Your task to perform on an android device: stop showing notifications on the lock screen Image 0: 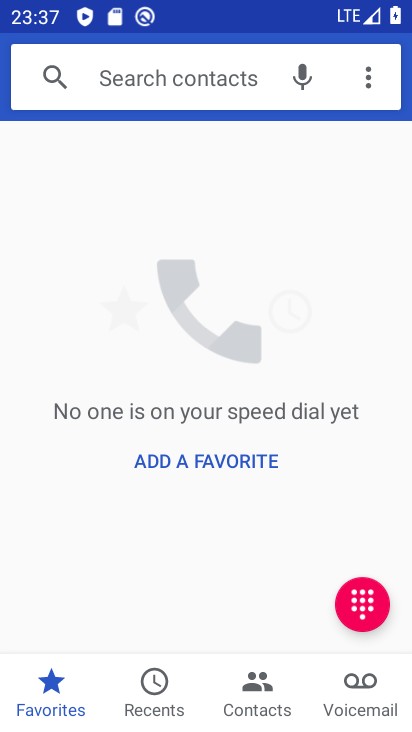
Step 0: press home button
Your task to perform on an android device: stop showing notifications on the lock screen Image 1: 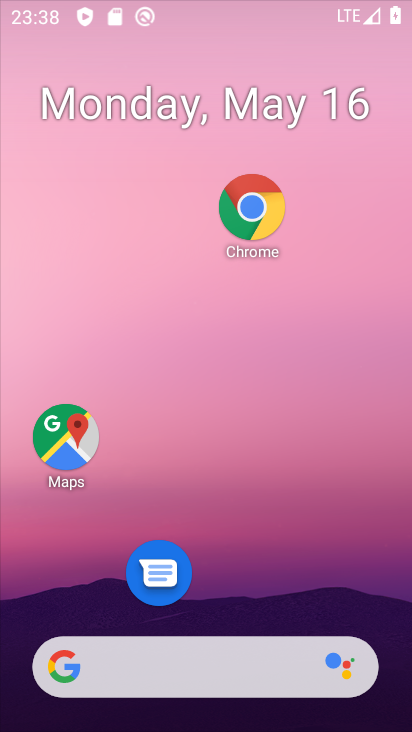
Step 1: drag from (141, 672) to (188, 49)
Your task to perform on an android device: stop showing notifications on the lock screen Image 2: 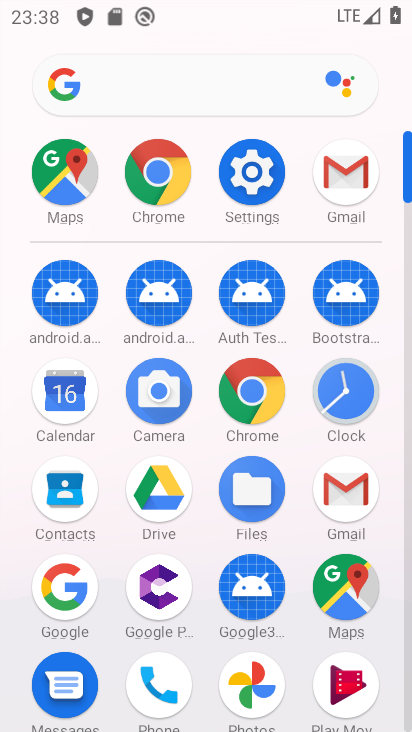
Step 2: click (259, 181)
Your task to perform on an android device: stop showing notifications on the lock screen Image 3: 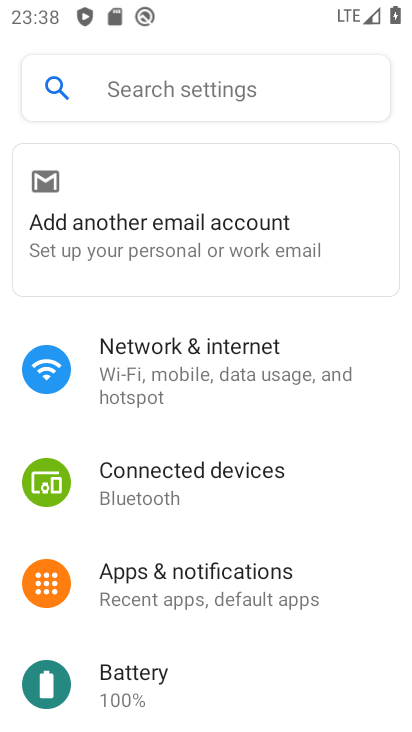
Step 3: click (199, 597)
Your task to perform on an android device: stop showing notifications on the lock screen Image 4: 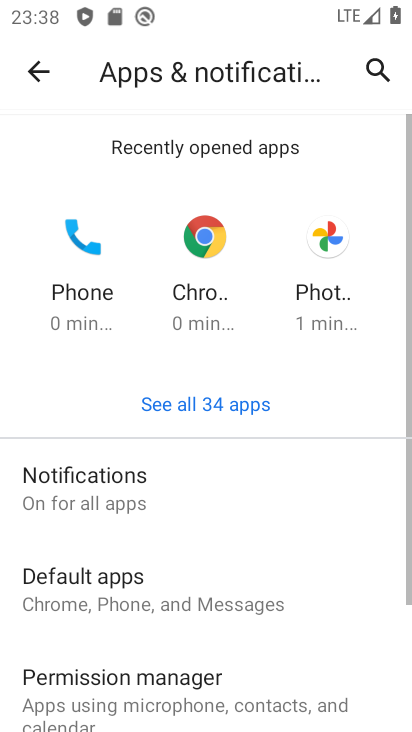
Step 4: drag from (219, 682) to (240, 463)
Your task to perform on an android device: stop showing notifications on the lock screen Image 5: 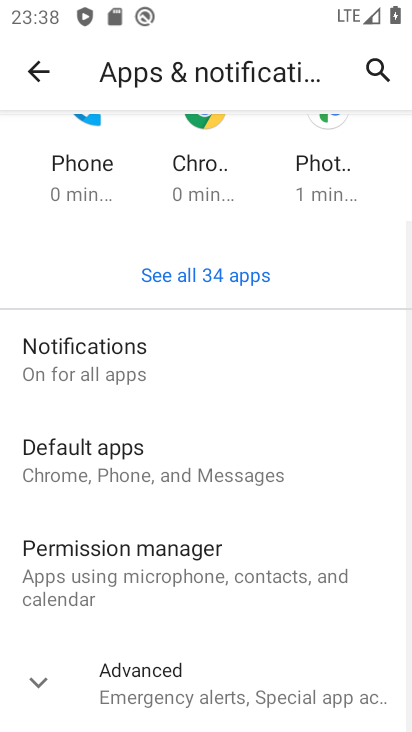
Step 5: click (152, 363)
Your task to perform on an android device: stop showing notifications on the lock screen Image 6: 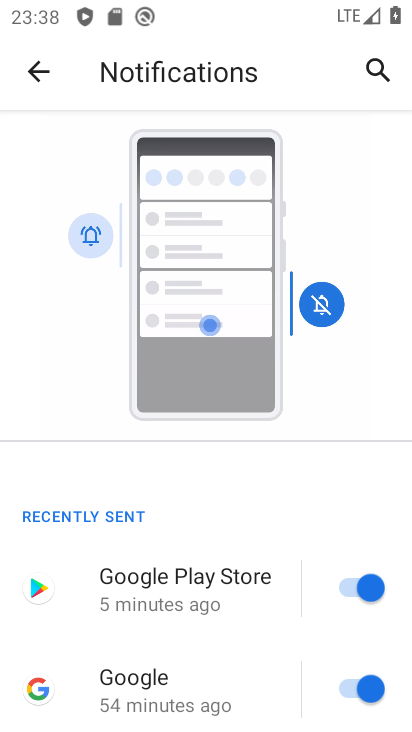
Step 6: drag from (237, 674) to (282, 185)
Your task to perform on an android device: stop showing notifications on the lock screen Image 7: 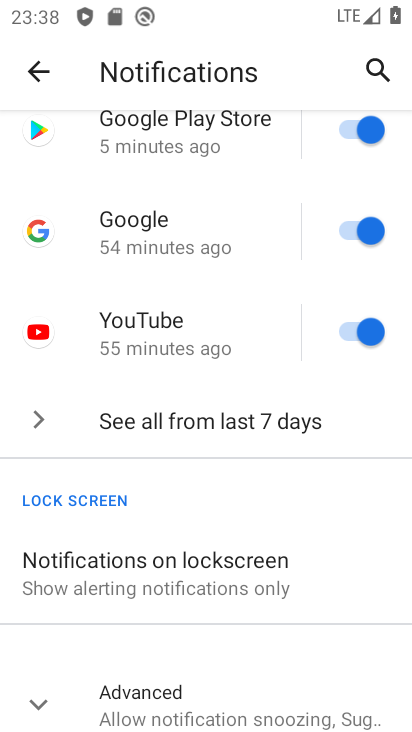
Step 7: click (216, 591)
Your task to perform on an android device: stop showing notifications on the lock screen Image 8: 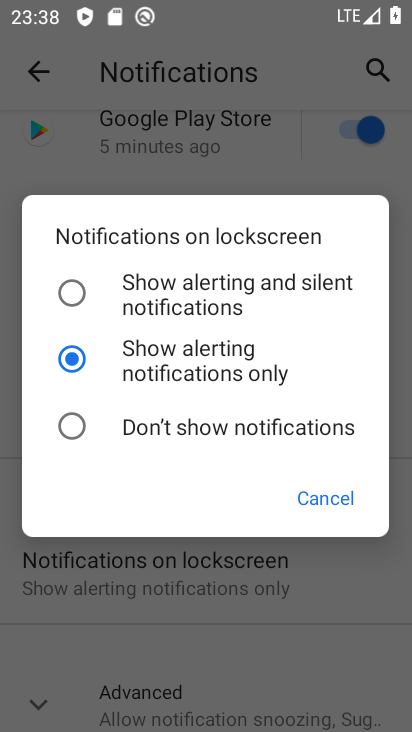
Step 8: click (180, 439)
Your task to perform on an android device: stop showing notifications on the lock screen Image 9: 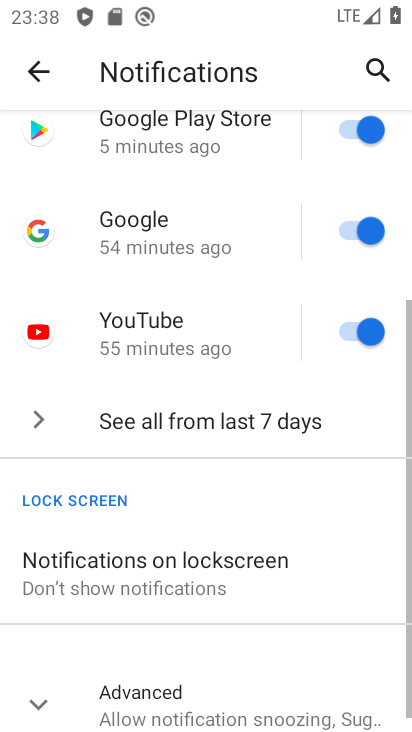
Step 9: task complete